Your task to perform on an android device: Go to Wikipedia Image 0: 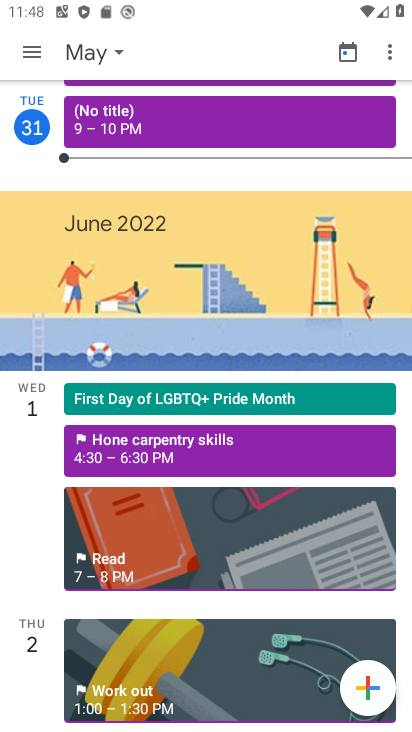
Step 0: task complete